Your task to perform on an android device: turn on bluetooth scan Image 0: 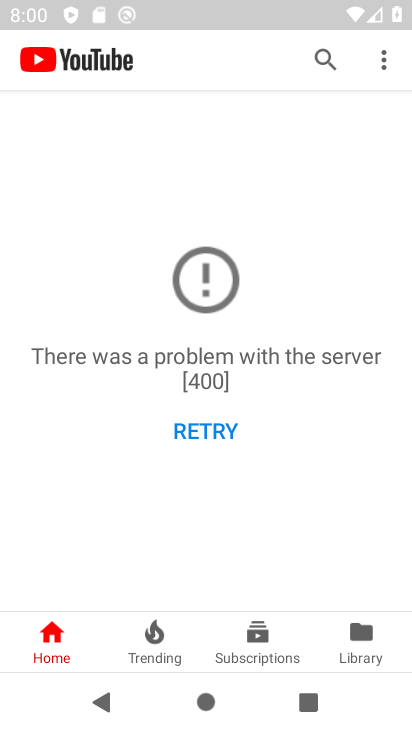
Step 0: press home button
Your task to perform on an android device: turn on bluetooth scan Image 1: 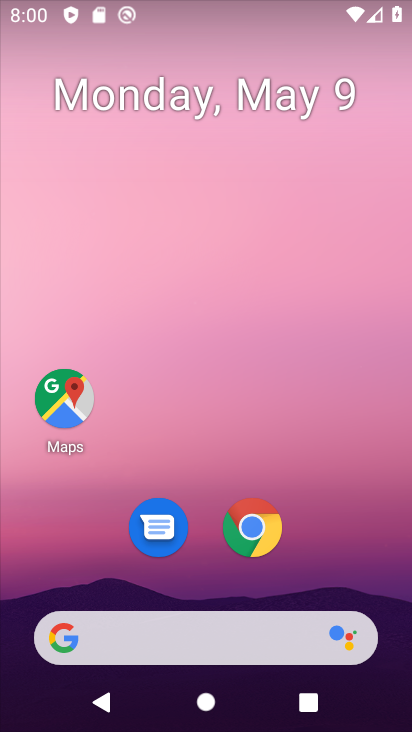
Step 1: drag from (212, 578) to (252, 128)
Your task to perform on an android device: turn on bluetooth scan Image 2: 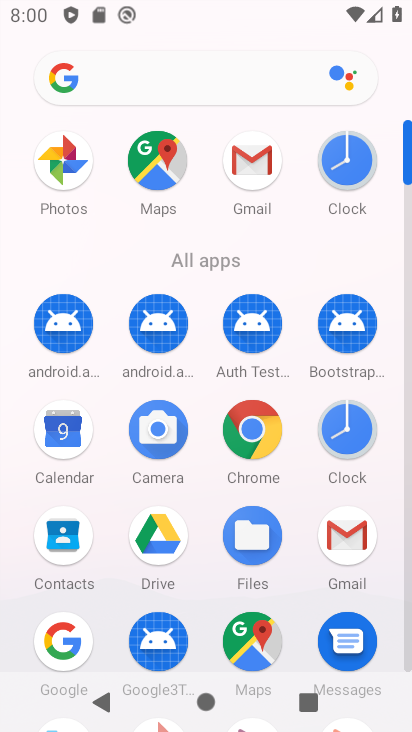
Step 2: drag from (193, 584) to (266, 97)
Your task to perform on an android device: turn on bluetooth scan Image 3: 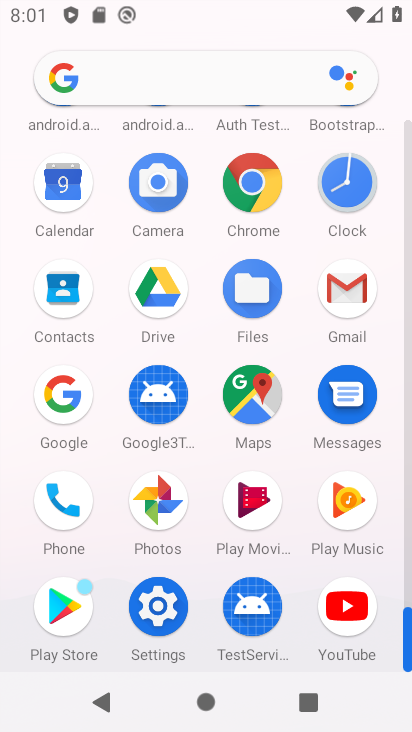
Step 3: click (166, 610)
Your task to perform on an android device: turn on bluetooth scan Image 4: 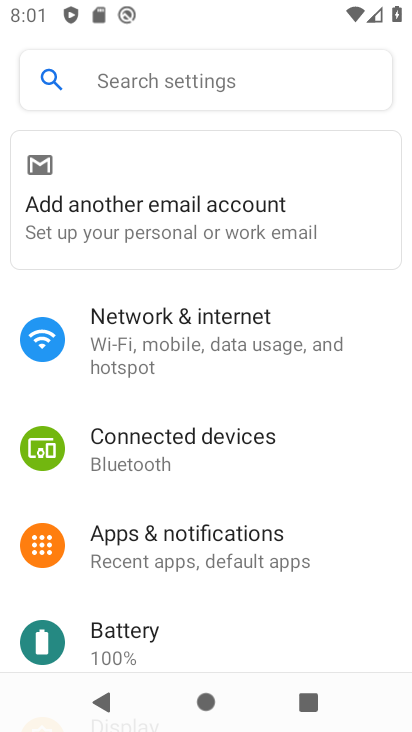
Step 4: drag from (216, 616) to (247, 82)
Your task to perform on an android device: turn on bluetooth scan Image 5: 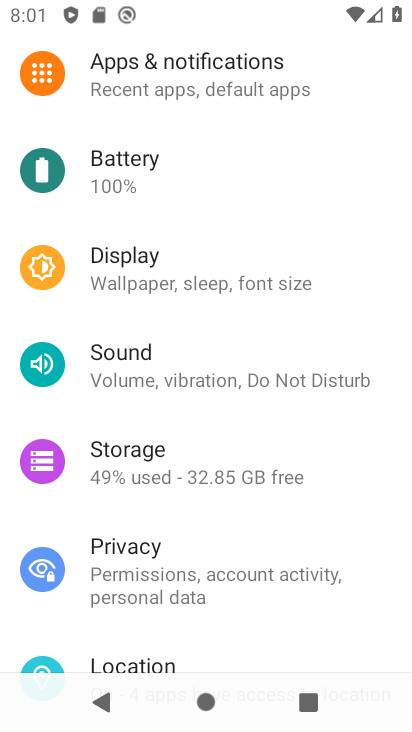
Step 5: click (197, 652)
Your task to perform on an android device: turn on bluetooth scan Image 6: 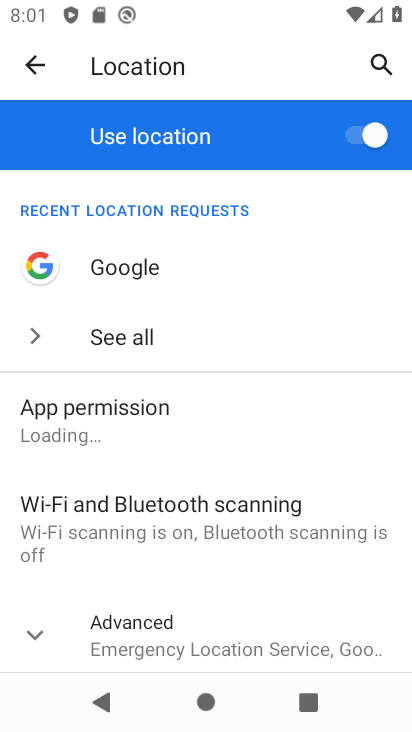
Step 6: click (153, 508)
Your task to perform on an android device: turn on bluetooth scan Image 7: 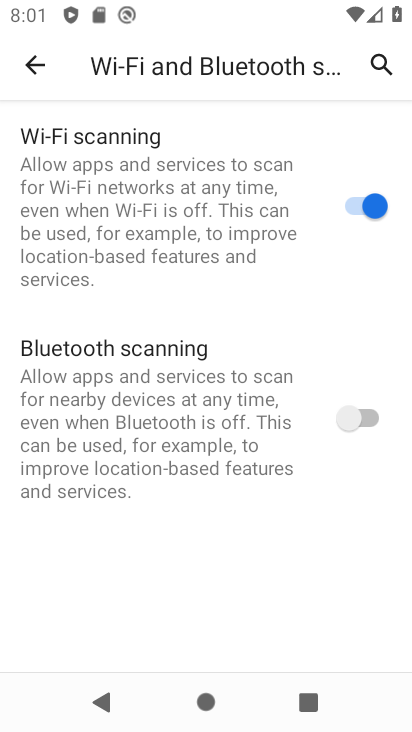
Step 7: click (362, 412)
Your task to perform on an android device: turn on bluetooth scan Image 8: 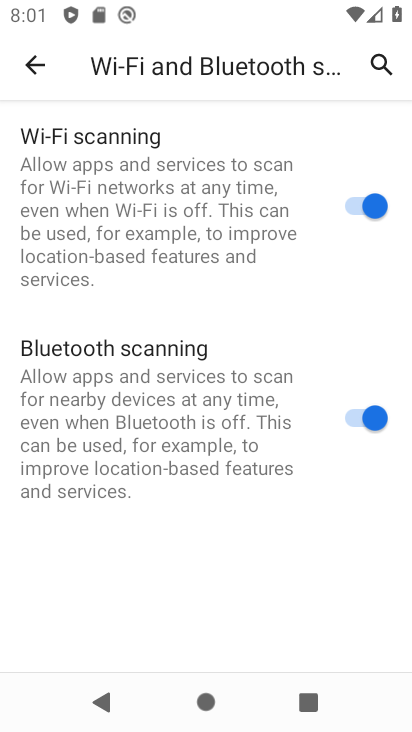
Step 8: task complete